Your task to perform on an android device: delete browsing data in the chrome app Image 0: 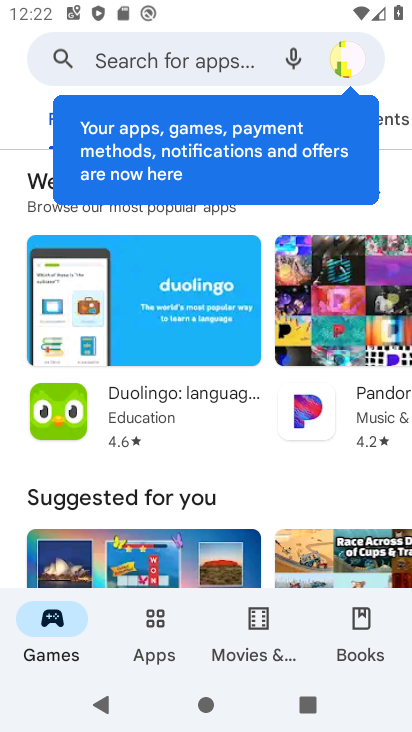
Step 0: press home button
Your task to perform on an android device: delete browsing data in the chrome app Image 1: 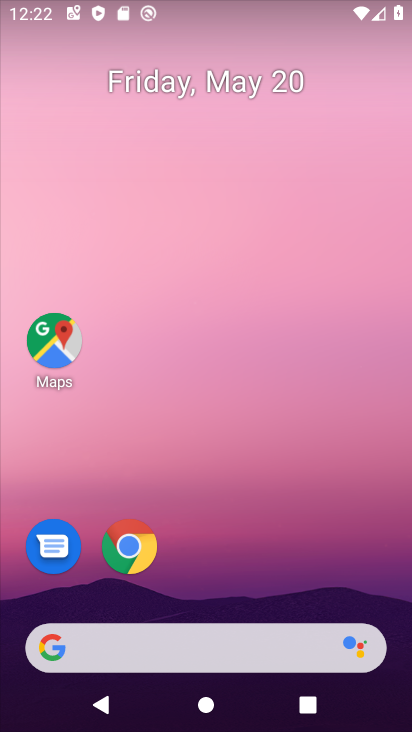
Step 1: click (126, 553)
Your task to perform on an android device: delete browsing data in the chrome app Image 2: 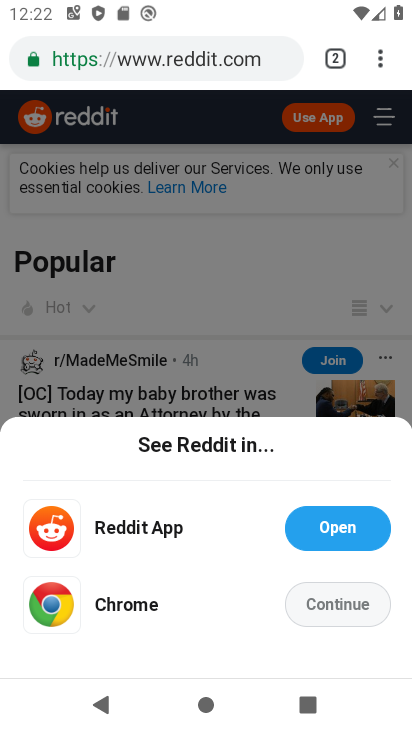
Step 2: click (376, 58)
Your task to perform on an android device: delete browsing data in the chrome app Image 3: 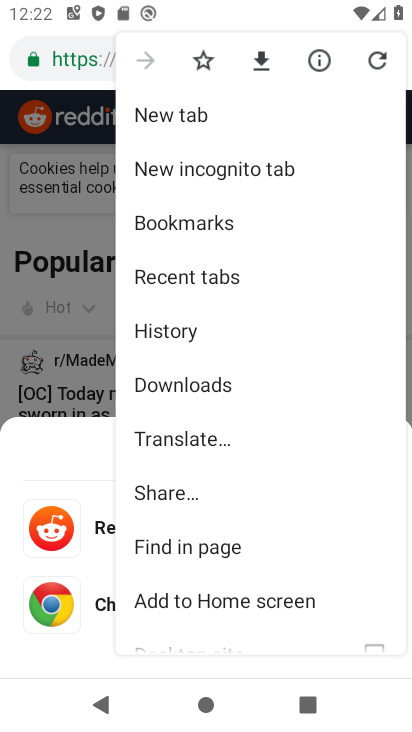
Step 3: click (179, 324)
Your task to perform on an android device: delete browsing data in the chrome app Image 4: 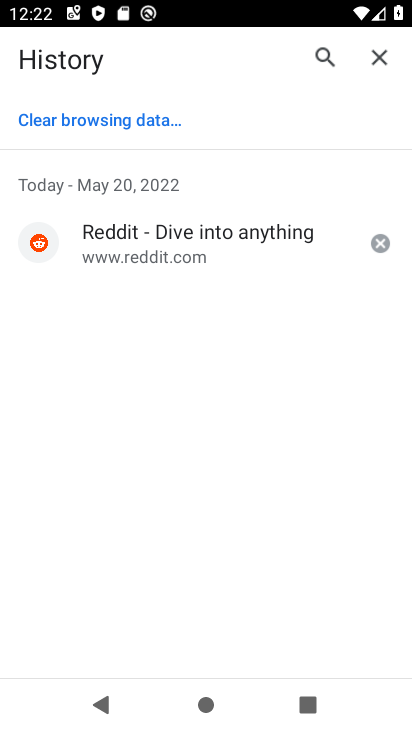
Step 4: click (119, 119)
Your task to perform on an android device: delete browsing data in the chrome app Image 5: 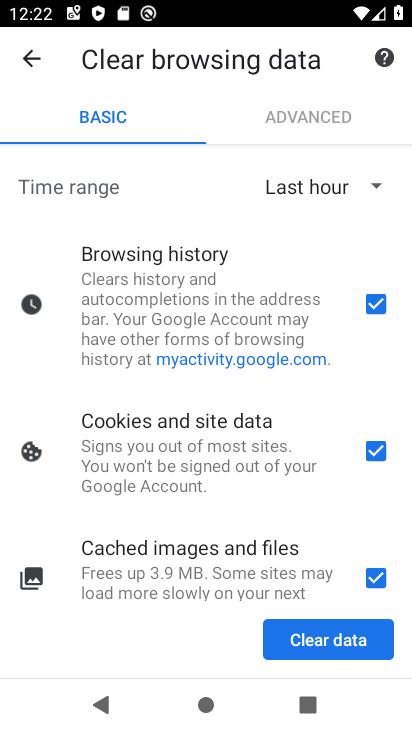
Step 5: click (336, 635)
Your task to perform on an android device: delete browsing data in the chrome app Image 6: 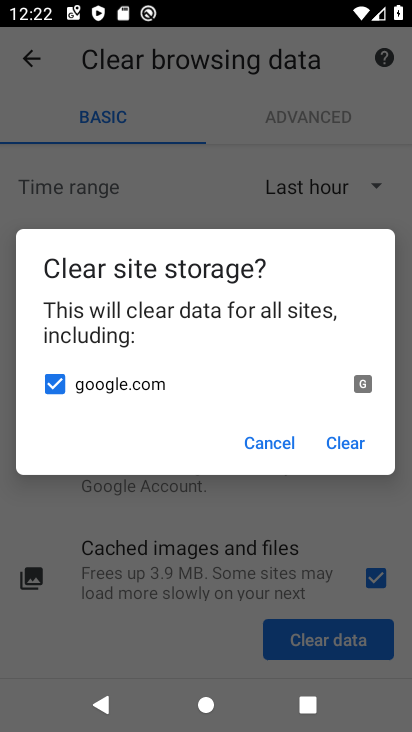
Step 6: click (349, 441)
Your task to perform on an android device: delete browsing data in the chrome app Image 7: 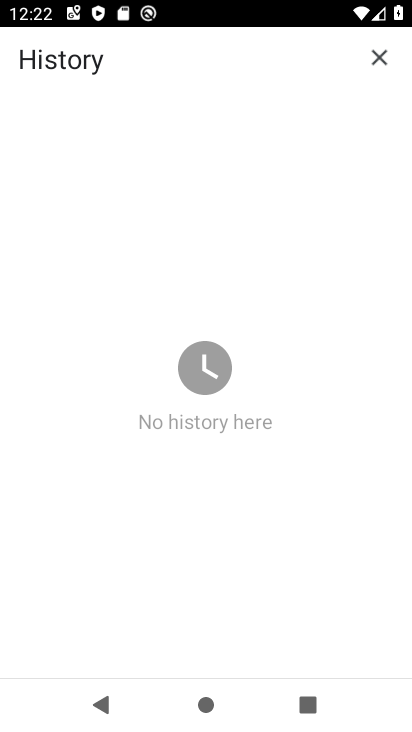
Step 7: task complete